Your task to perform on an android device: turn off improve location accuracy Image 0: 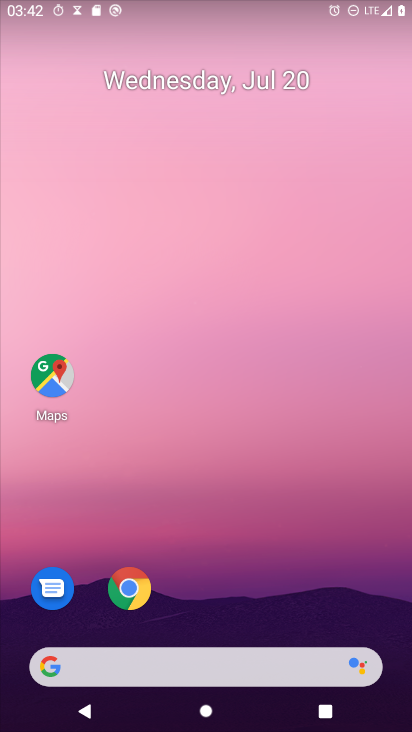
Step 0: click (255, 625)
Your task to perform on an android device: turn off improve location accuracy Image 1: 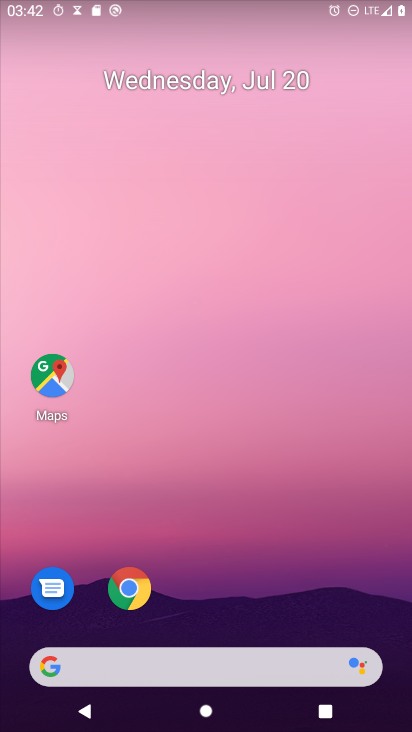
Step 1: click (255, 625)
Your task to perform on an android device: turn off improve location accuracy Image 2: 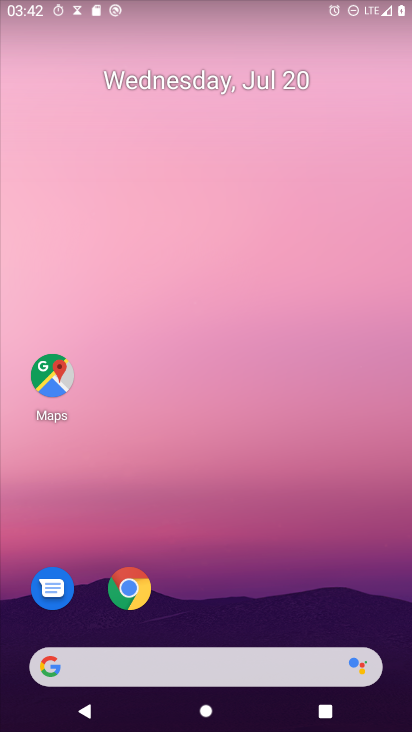
Step 2: click (219, 591)
Your task to perform on an android device: turn off improve location accuracy Image 3: 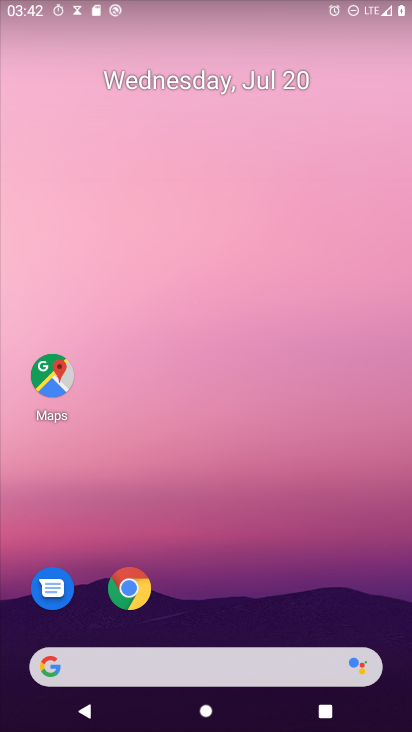
Step 3: drag from (219, 591) to (152, 23)
Your task to perform on an android device: turn off improve location accuracy Image 4: 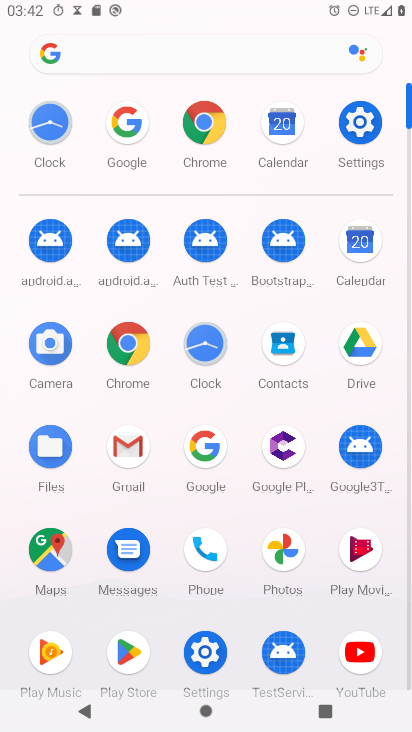
Step 4: click (359, 128)
Your task to perform on an android device: turn off improve location accuracy Image 5: 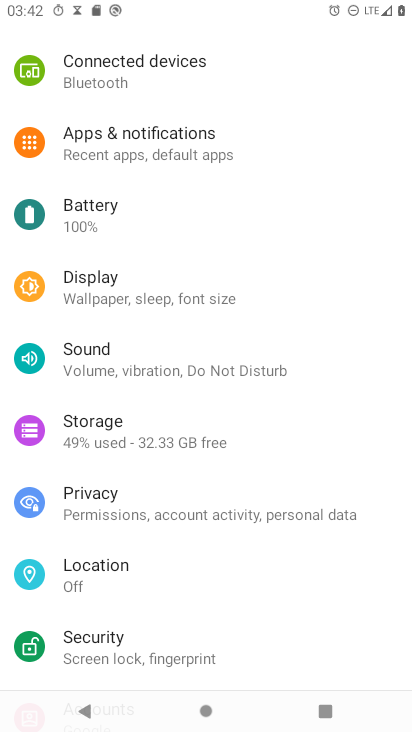
Step 5: click (52, 559)
Your task to perform on an android device: turn off improve location accuracy Image 6: 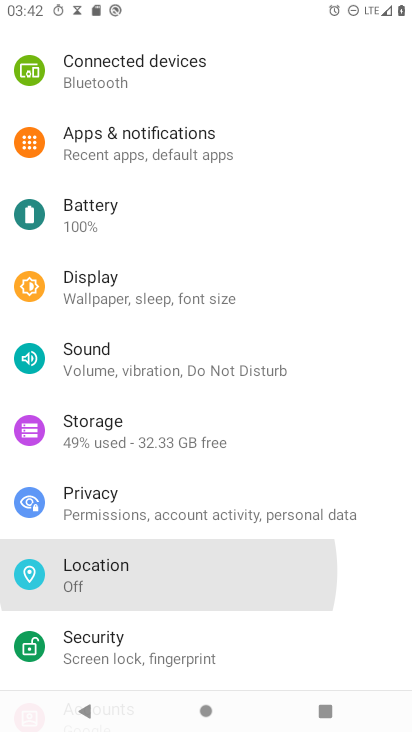
Step 6: click (52, 559)
Your task to perform on an android device: turn off improve location accuracy Image 7: 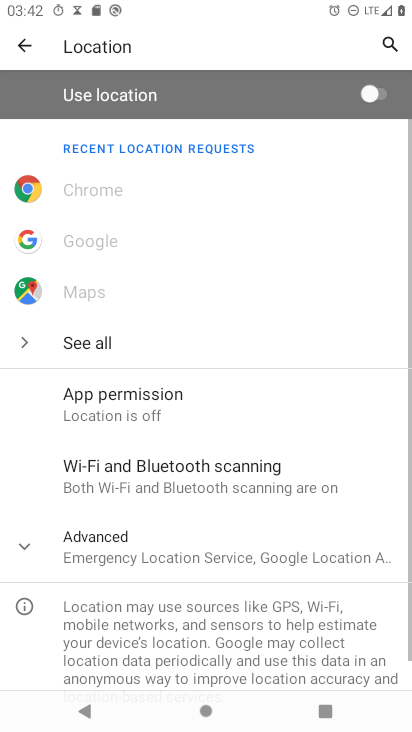
Step 7: click (52, 559)
Your task to perform on an android device: turn off improve location accuracy Image 8: 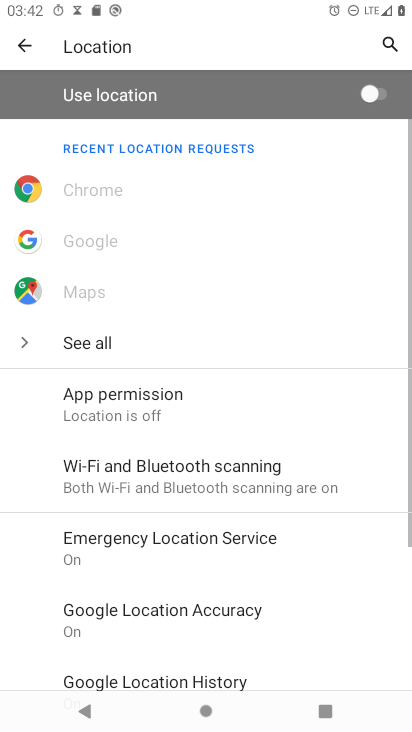
Step 8: click (72, 599)
Your task to perform on an android device: turn off improve location accuracy Image 9: 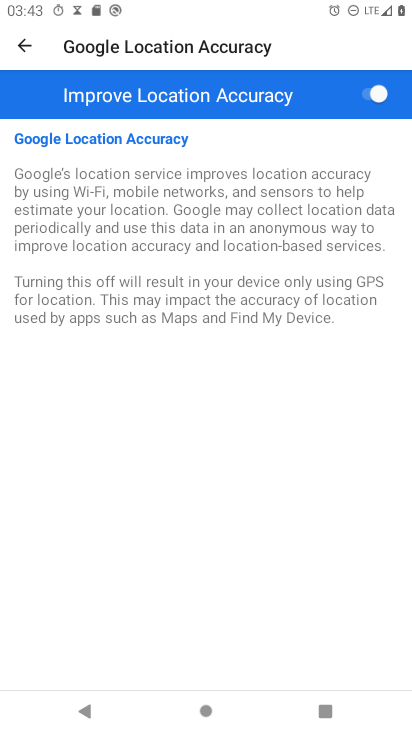
Step 9: click (385, 92)
Your task to perform on an android device: turn off improve location accuracy Image 10: 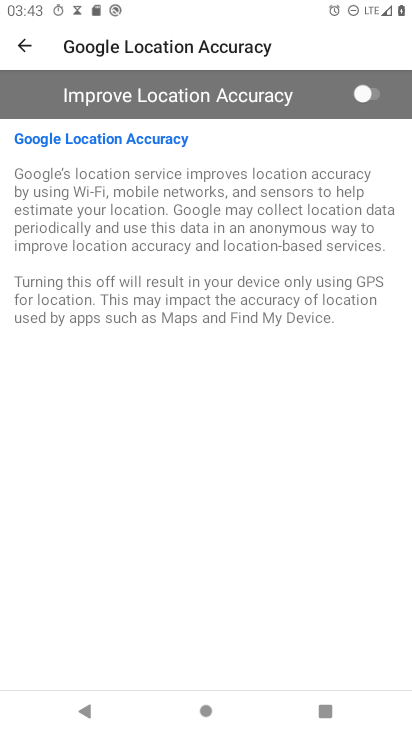
Step 10: task complete